Your task to perform on an android device: clear all cookies in the chrome app Image 0: 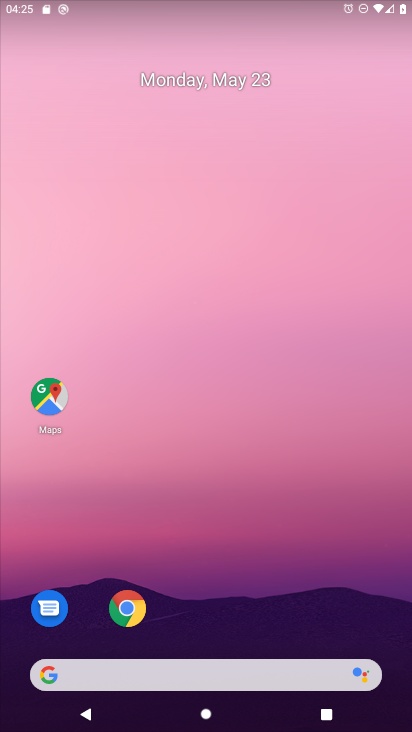
Step 0: click (127, 610)
Your task to perform on an android device: clear all cookies in the chrome app Image 1: 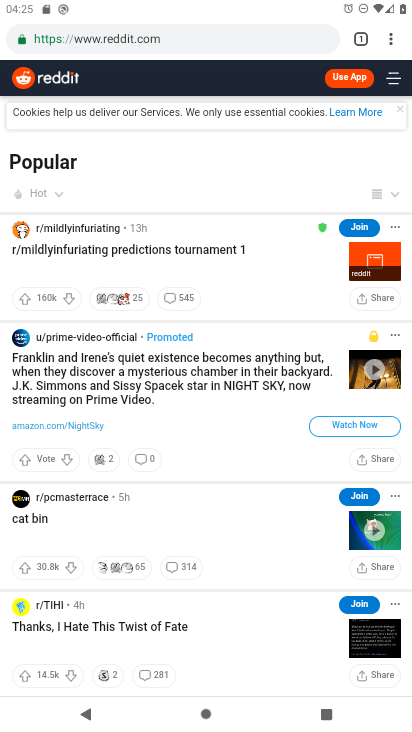
Step 1: click (391, 39)
Your task to perform on an android device: clear all cookies in the chrome app Image 2: 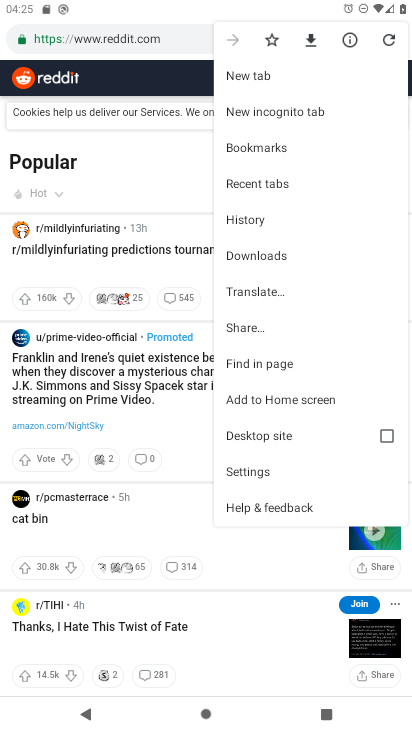
Step 2: click (260, 474)
Your task to perform on an android device: clear all cookies in the chrome app Image 3: 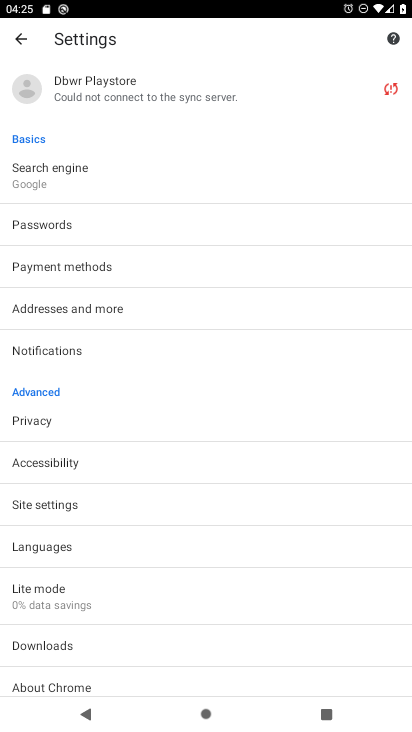
Step 3: click (38, 425)
Your task to perform on an android device: clear all cookies in the chrome app Image 4: 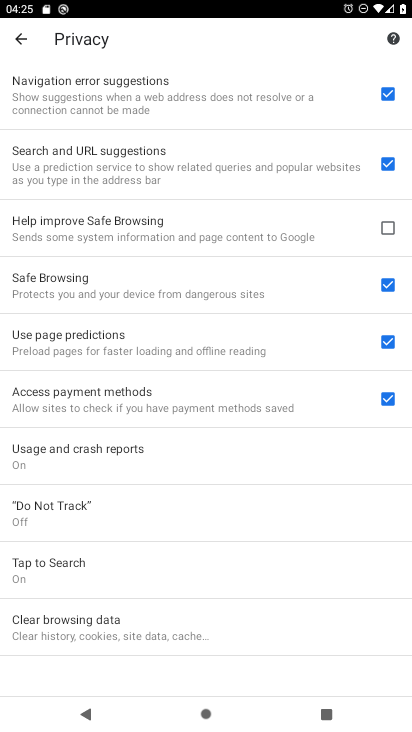
Step 4: click (132, 630)
Your task to perform on an android device: clear all cookies in the chrome app Image 5: 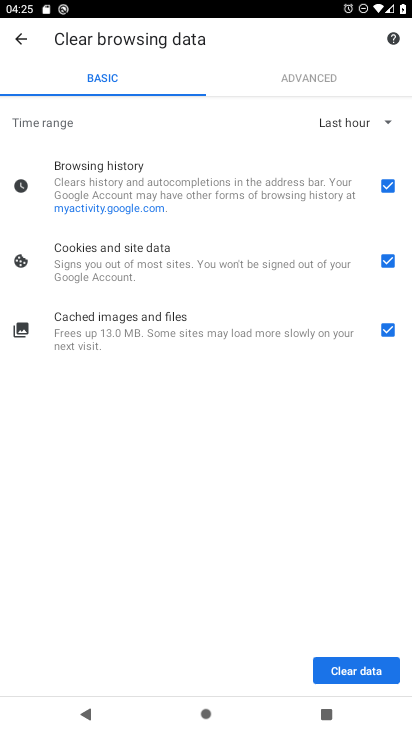
Step 5: click (382, 198)
Your task to perform on an android device: clear all cookies in the chrome app Image 6: 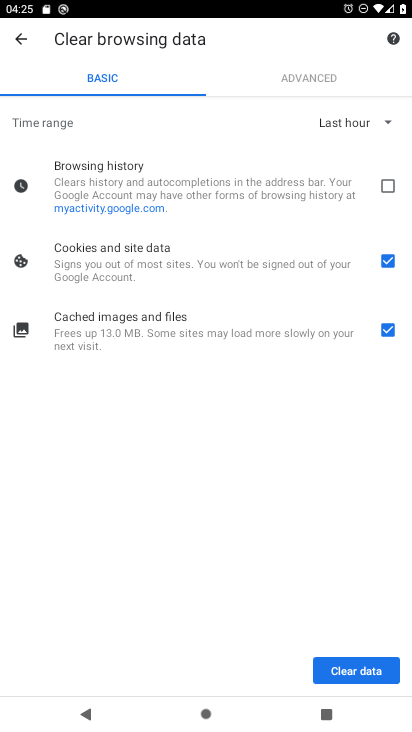
Step 6: click (392, 297)
Your task to perform on an android device: clear all cookies in the chrome app Image 7: 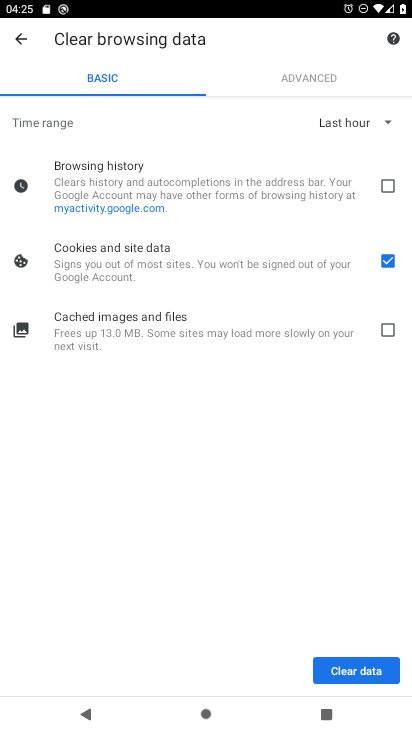
Step 7: click (382, 124)
Your task to perform on an android device: clear all cookies in the chrome app Image 8: 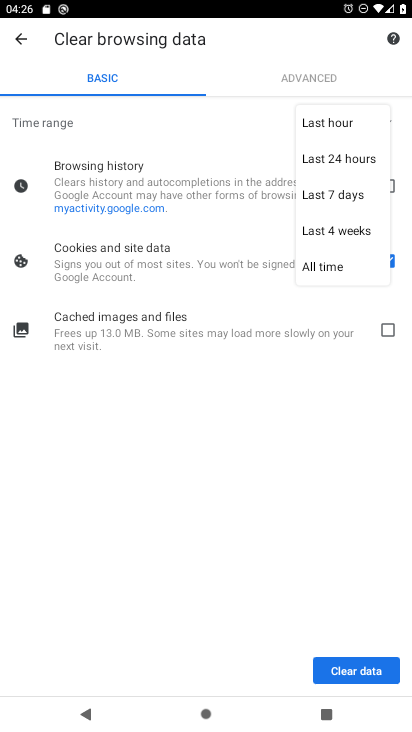
Step 8: click (328, 260)
Your task to perform on an android device: clear all cookies in the chrome app Image 9: 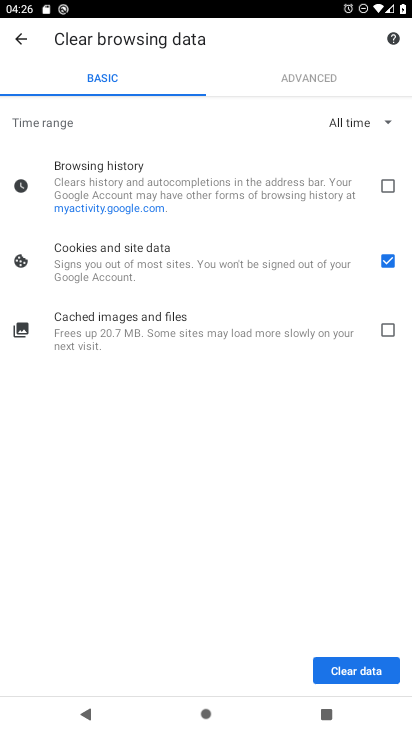
Step 9: click (350, 682)
Your task to perform on an android device: clear all cookies in the chrome app Image 10: 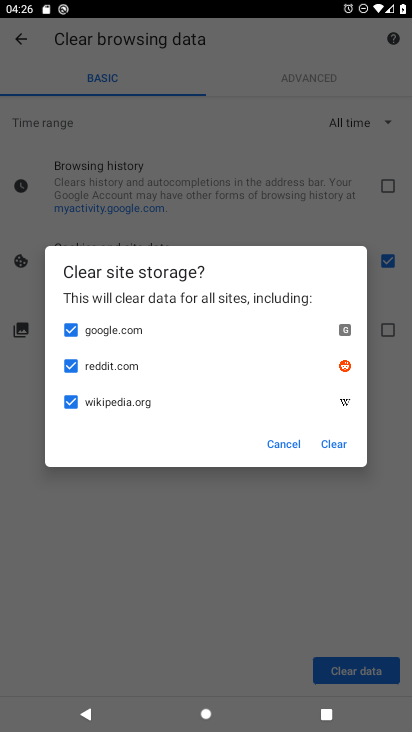
Step 10: click (337, 442)
Your task to perform on an android device: clear all cookies in the chrome app Image 11: 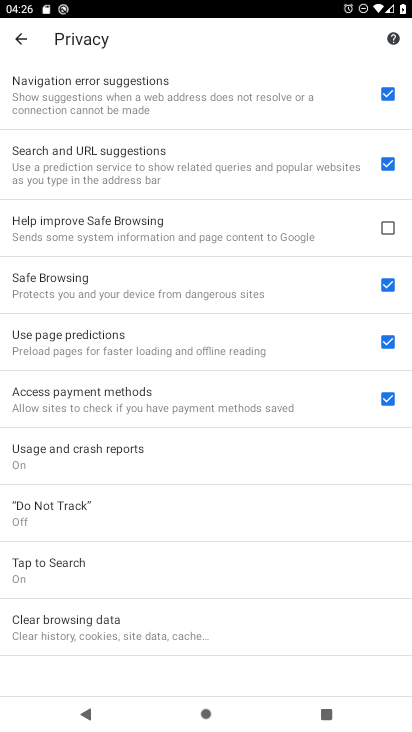
Step 11: task complete